Your task to perform on an android device: open wifi settings Image 0: 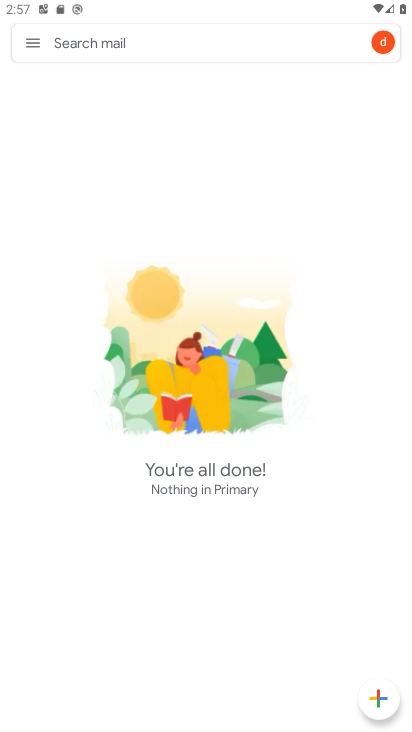
Step 0: press home button
Your task to perform on an android device: open wifi settings Image 1: 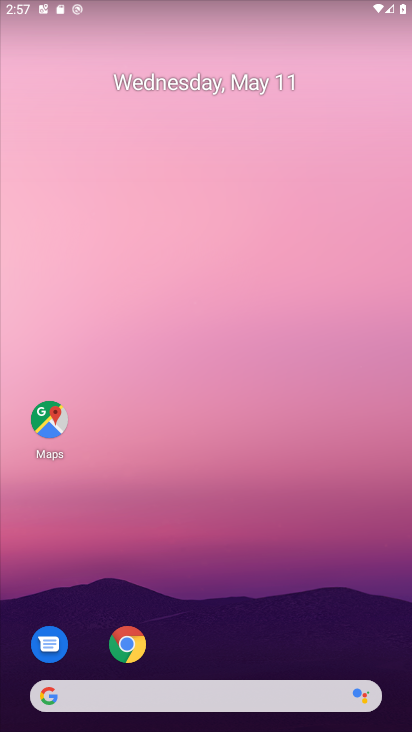
Step 1: drag from (190, 677) to (157, 13)
Your task to perform on an android device: open wifi settings Image 2: 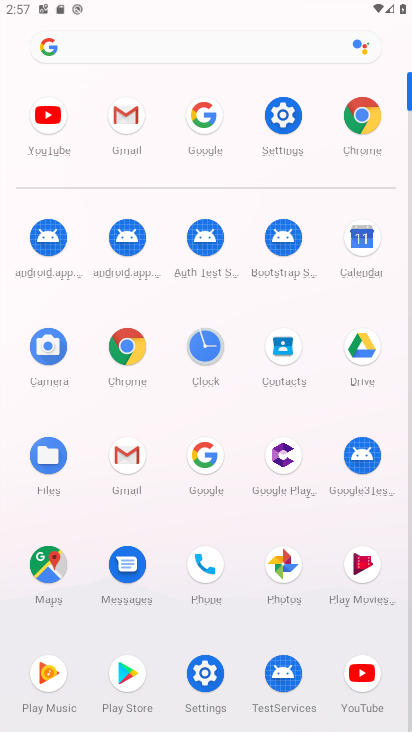
Step 2: click (269, 123)
Your task to perform on an android device: open wifi settings Image 3: 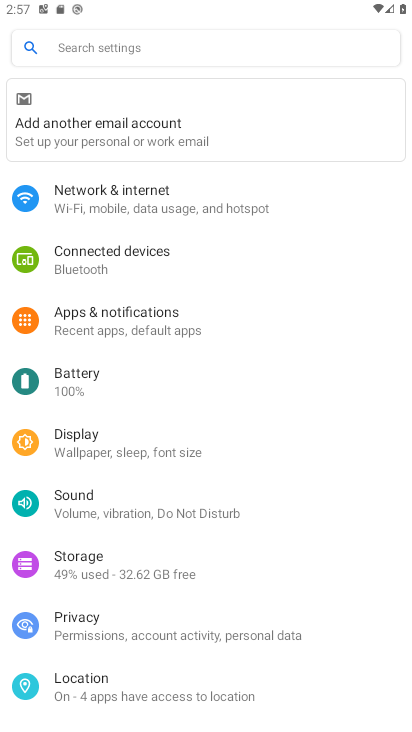
Step 3: drag from (132, 123) to (139, 448)
Your task to perform on an android device: open wifi settings Image 4: 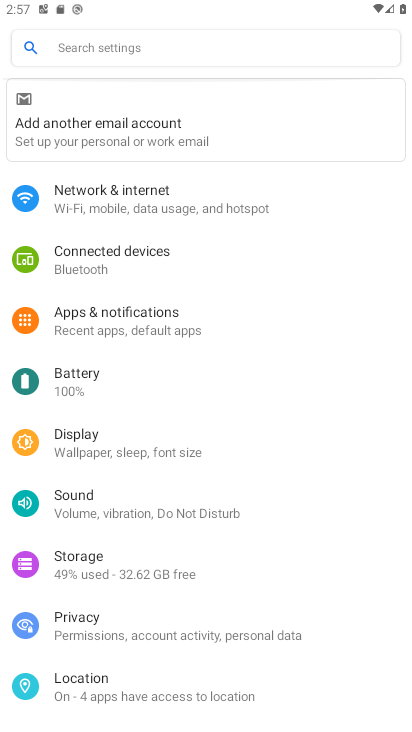
Step 4: click (123, 197)
Your task to perform on an android device: open wifi settings Image 5: 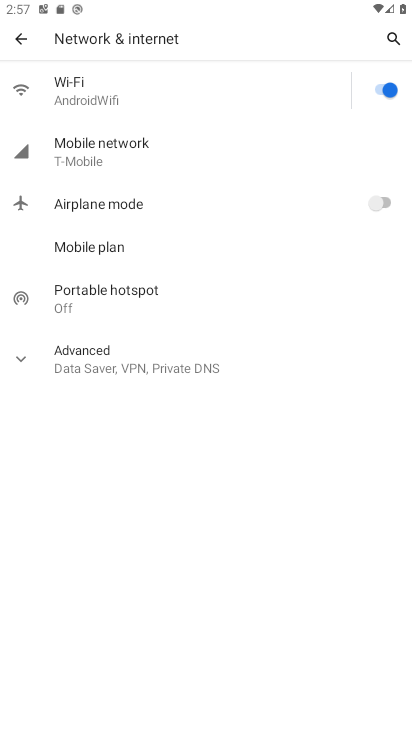
Step 5: click (117, 90)
Your task to perform on an android device: open wifi settings Image 6: 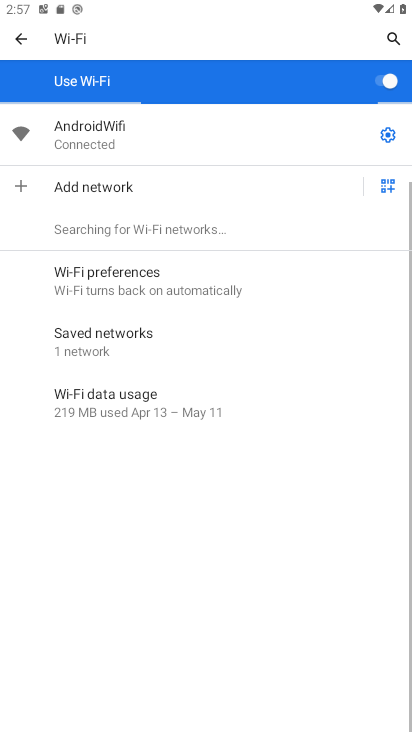
Step 6: task complete